Your task to perform on an android device: open app "Truecaller" (install if not already installed) Image 0: 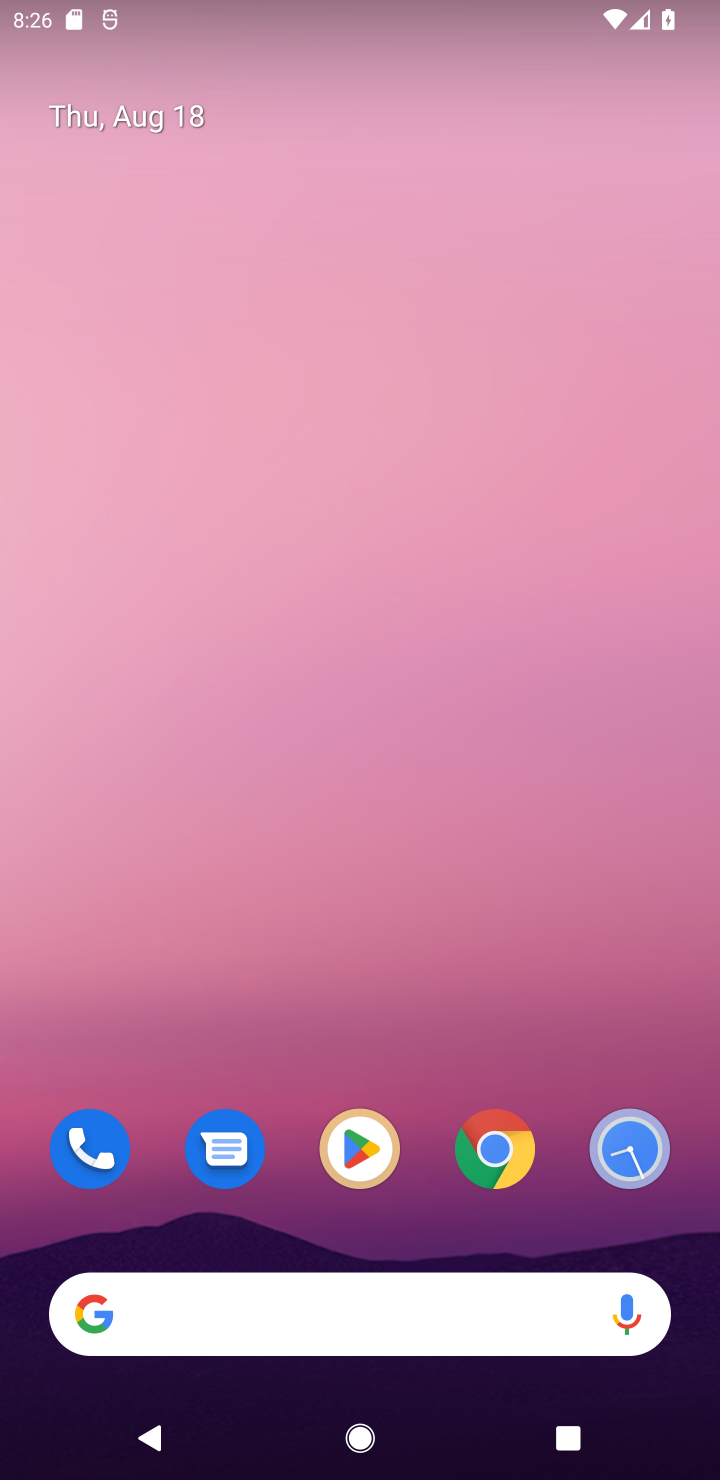
Step 0: drag from (548, 1162) to (492, 567)
Your task to perform on an android device: open app "Truecaller" (install if not already installed) Image 1: 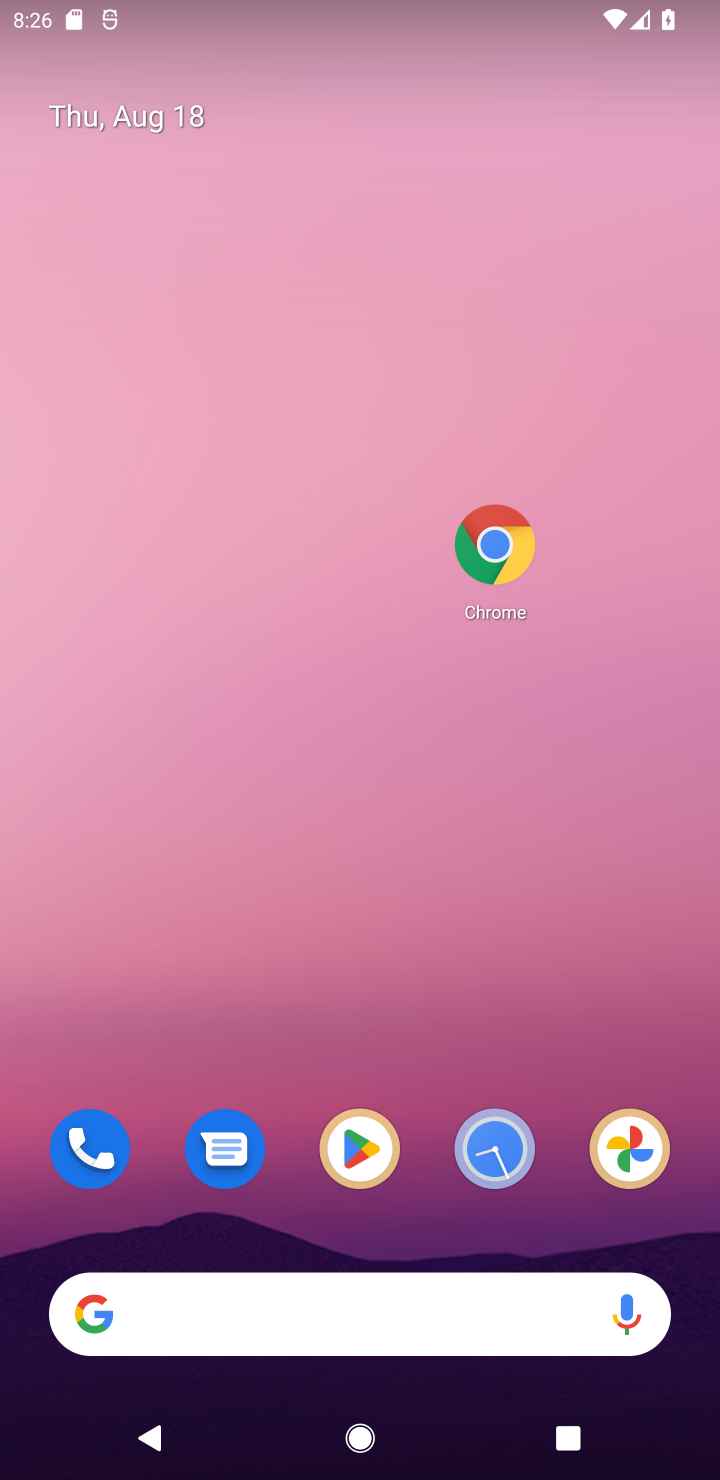
Step 1: drag from (494, 873) to (183, 73)
Your task to perform on an android device: open app "Truecaller" (install if not already installed) Image 2: 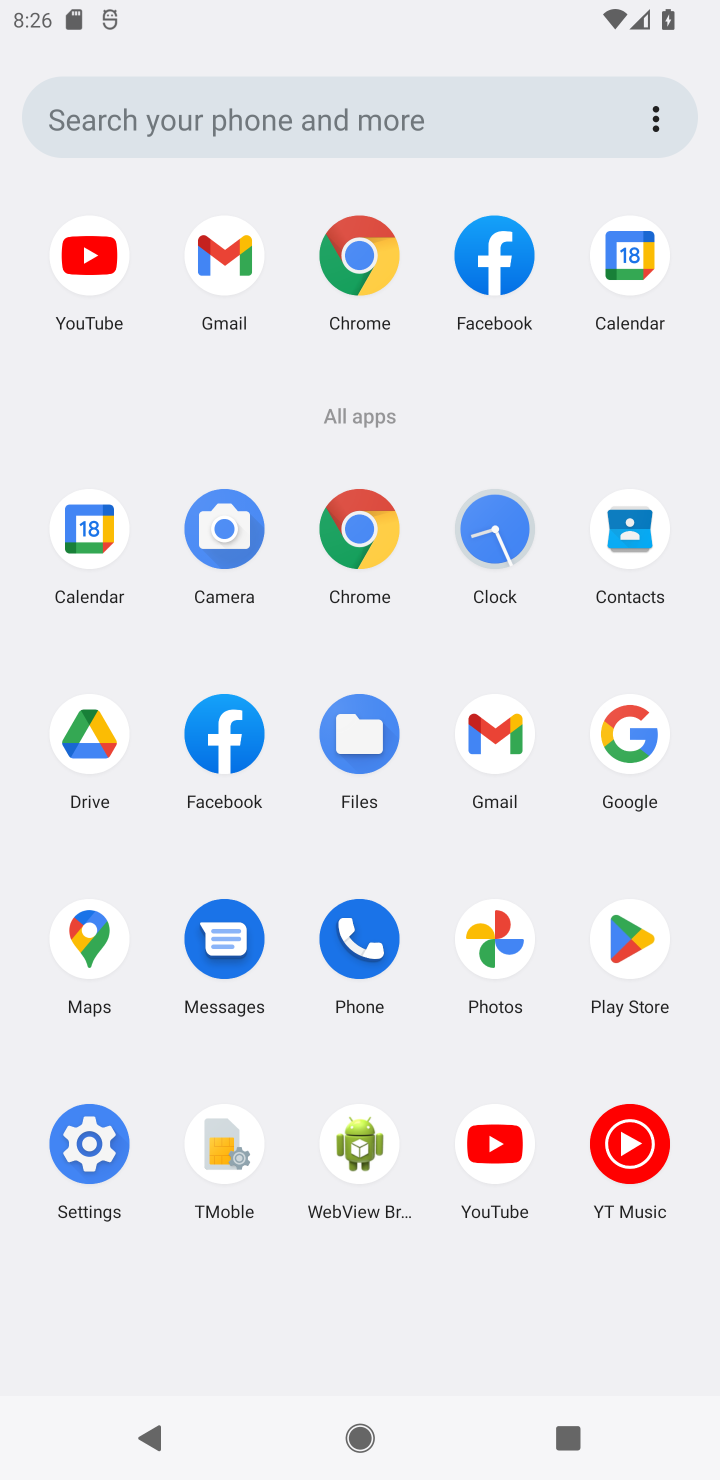
Step 2: click (591, 913)
Your task to perform on an android device: open app "Truecaller" (install if not already installed) Image 3: 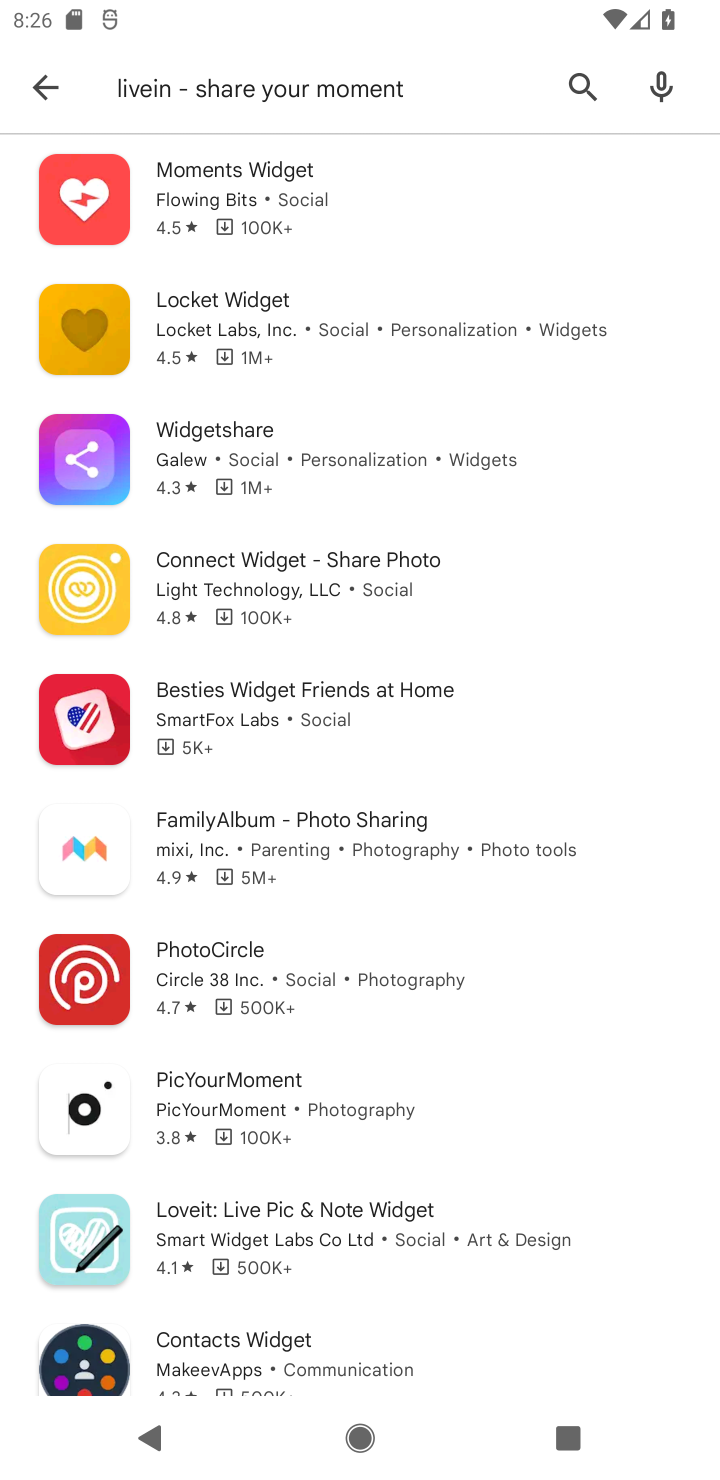
Step 3: press back button
Your task to perform on an android device: open app "Truecaller" (install if not already installed) Image 4: 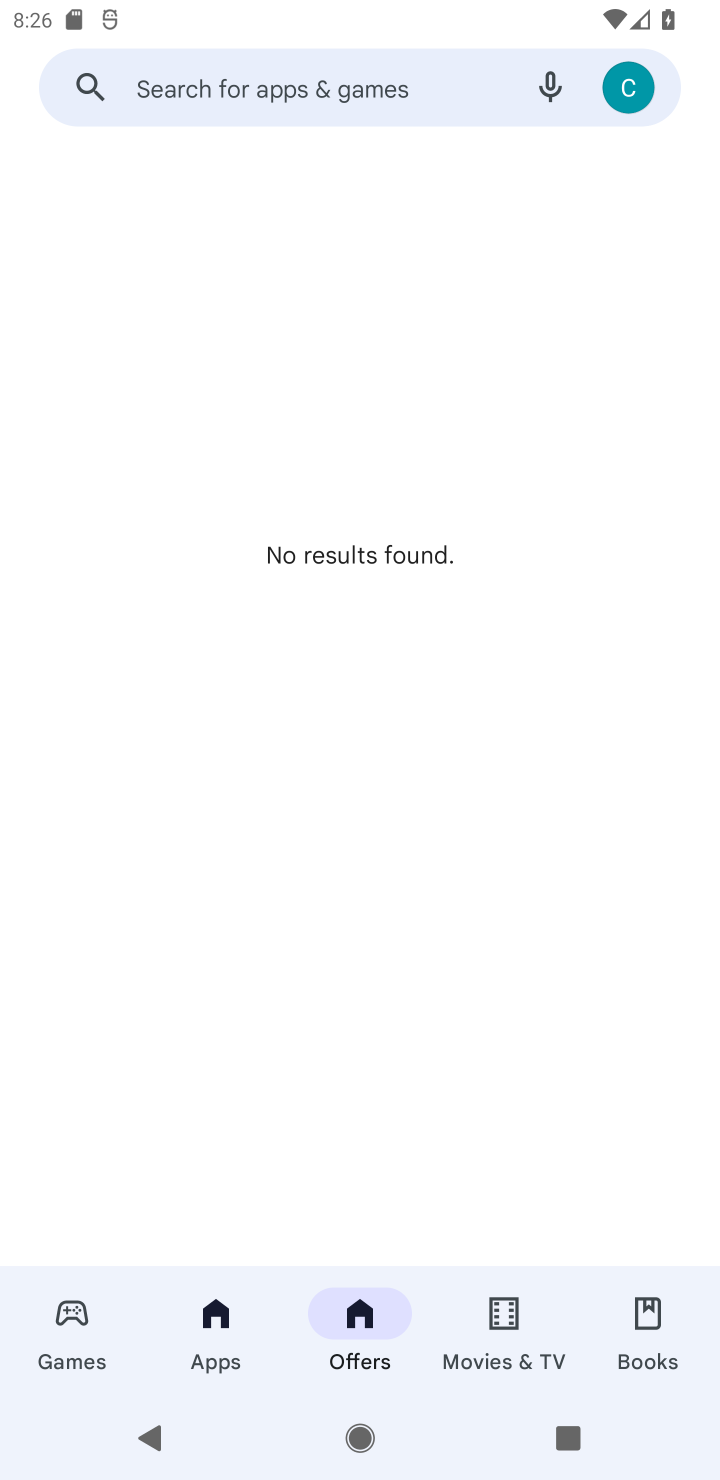
Step 4: click (267, 79)
Your task to perform on an android device: open app "Truecaller" (install if not already installed) Image 5: 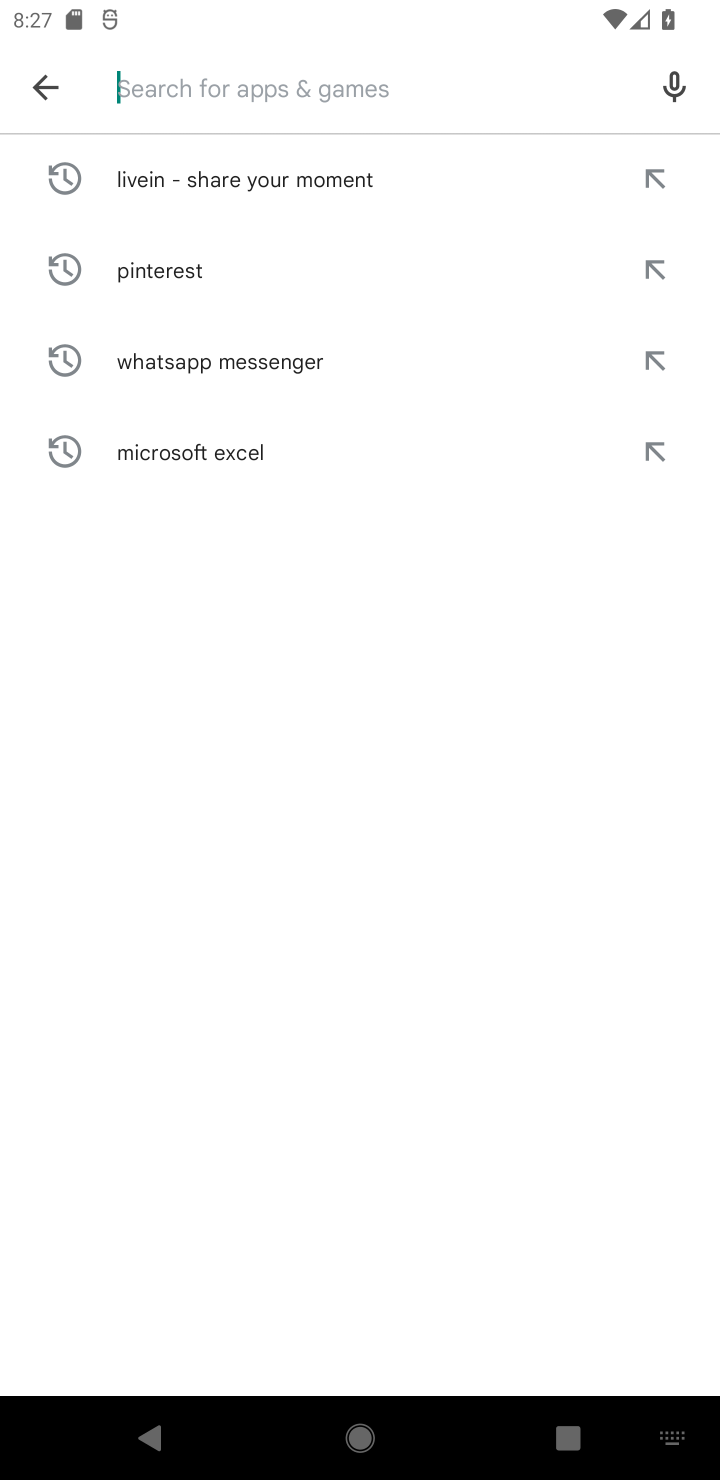
Step 5: type "Truecaller"
Your task to perform on an android device: open app "Truecaller" (install if not already installed) Image 6: 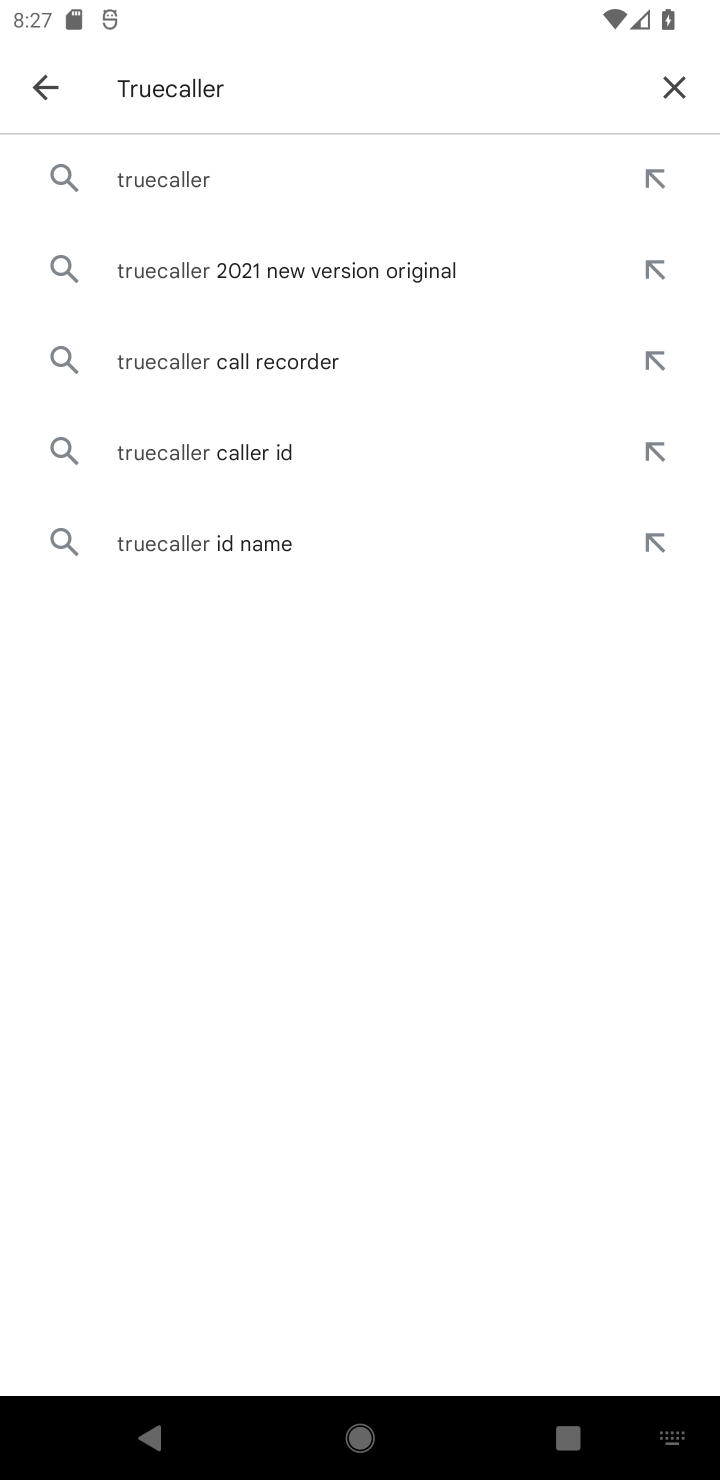
Step 6: click (199, 211)
Your task to perform on an android device: open app "Truecaller" (install if not already installed) Image 7: 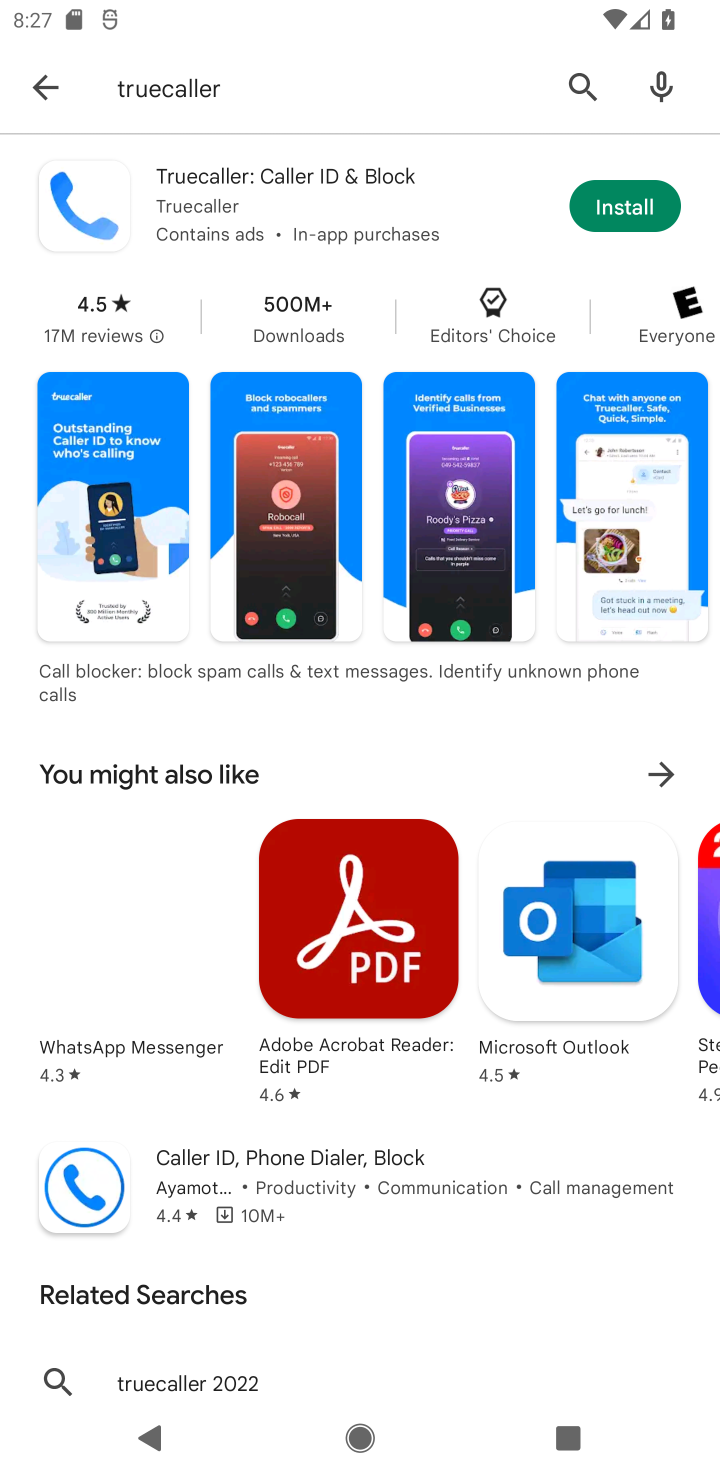
Step 7: task complete